Your task to perform on an android device: Open Google Maps Image 0: 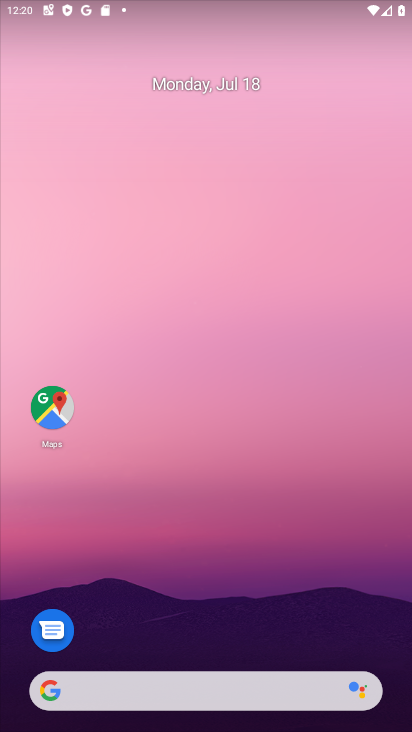
Step 0: drag from (205, 699) to (267, 2)
Your task to perform on an android device: Open Google Maps Image 1: 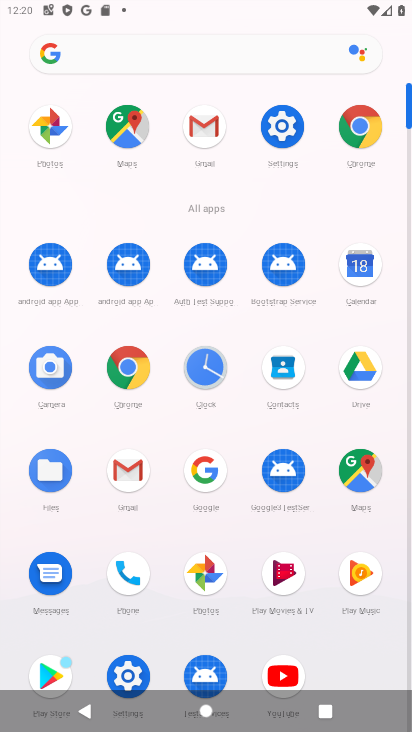
Step 1: click (365, 465)
Your task to perform on an android device: Open Google Maps Image 2: 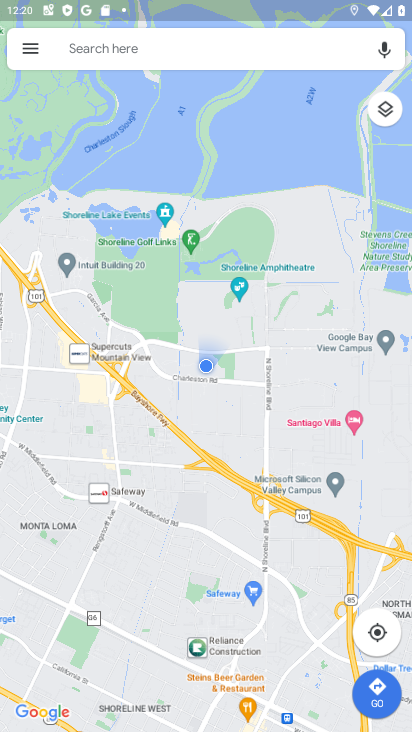
Step 2: task complete